Your task to perform on an android device: Open wifi settings Image 0: 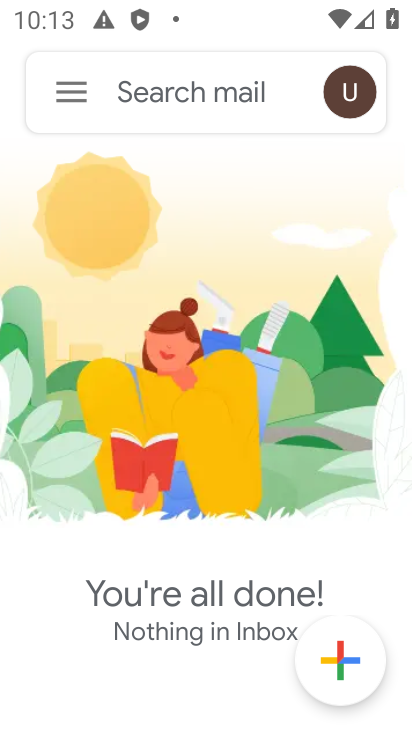
Step 0: press home button
Your task to perform on an android device: Open wifi settings Image 1: 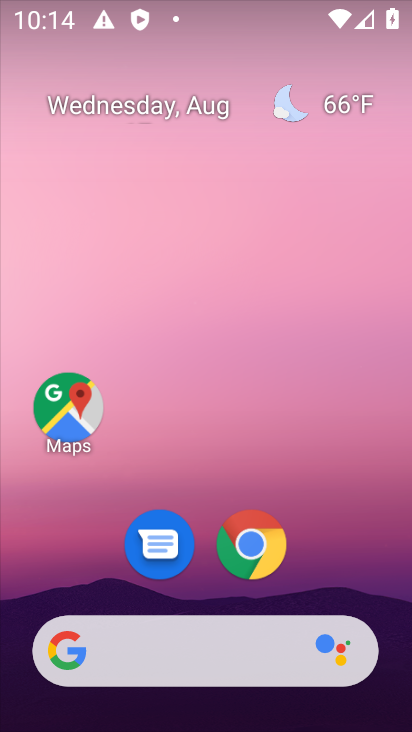
Step 1: task complete